Your task to perform on an android device: Open privacy settings Image 0: 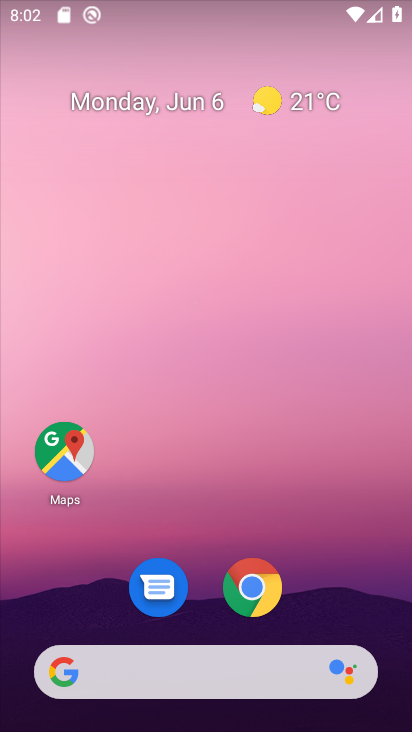
Step 0: drag from (309, 421) to (271, 157)
Your task to perform on an android device: Open privacy settings Image 1: 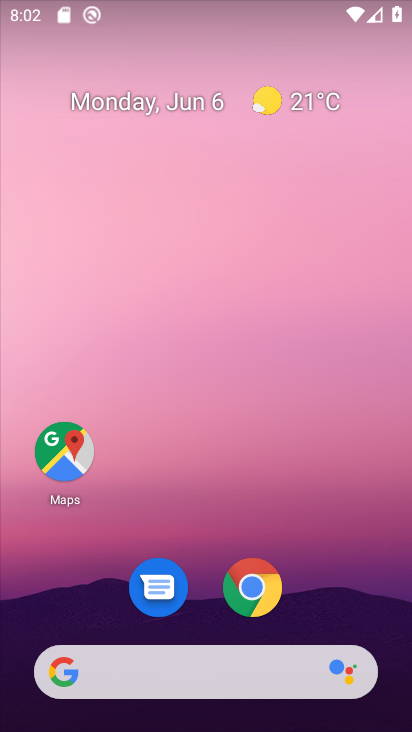
Step 1: drag from (355, 554) to (305, 211)
Your task to perform on an android device: Open privacy settings Image 2: 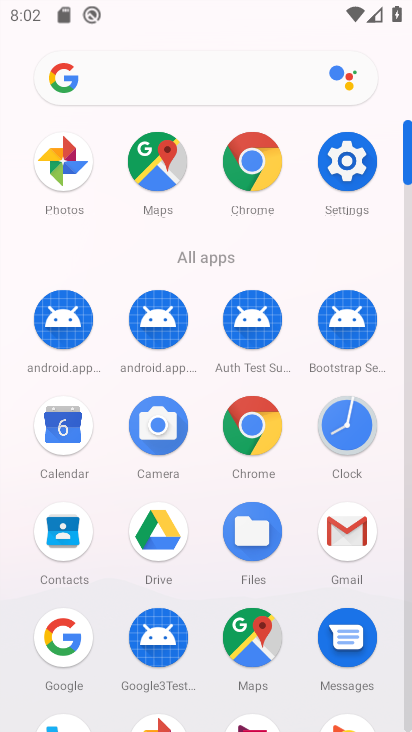
Step 2: click (350, 154)
Your task to perform on an android device: Open privacy settings Image 3: 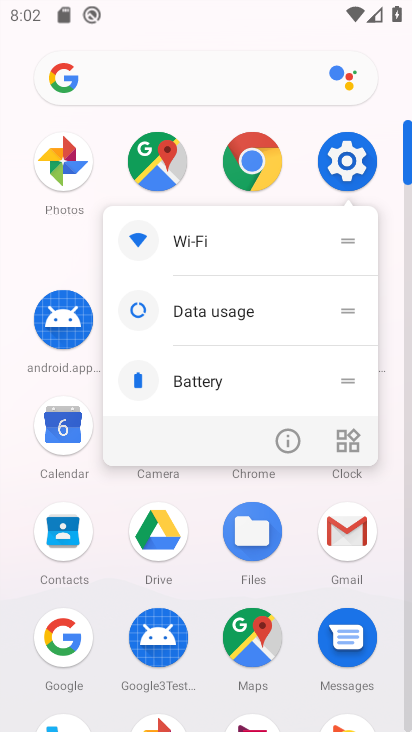
Step 3: click (356, 161)
Your task to perform on an android device: Open privacy settings Image 4: 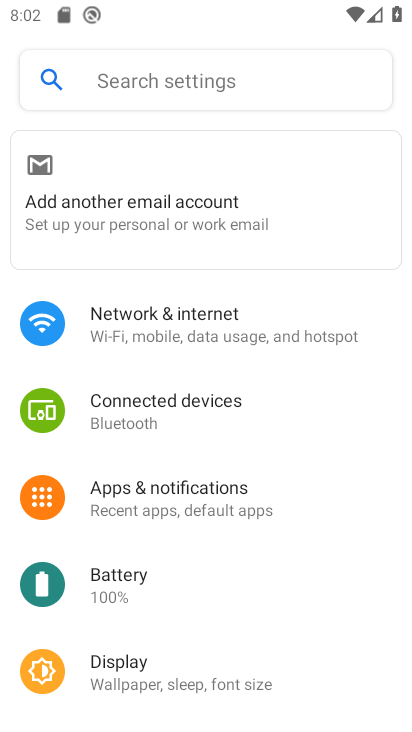
Step 4: drag from (274, 629) to (273, 292)
Your task to perform on an android device: Open privacy settings Image 5: 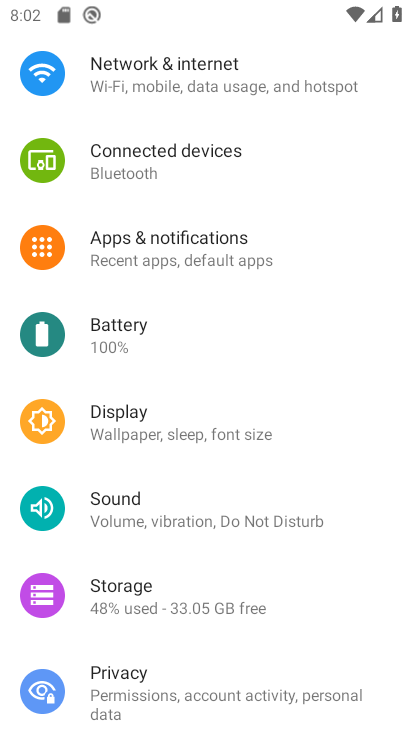
Step 5: click (197, 693)
Your task to perform on an android device: Open privacy settings Image 6: 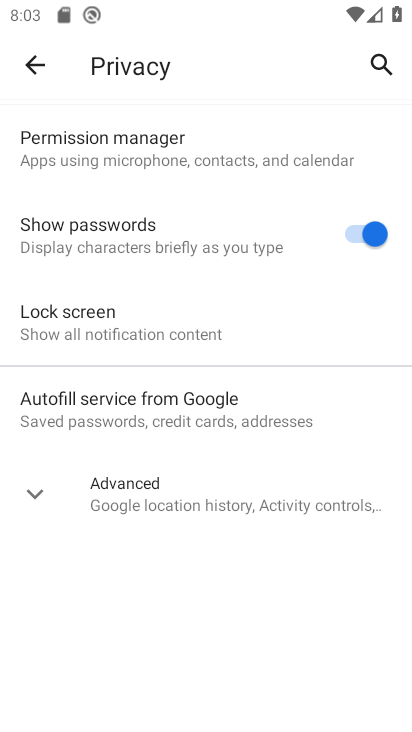
Step 6: task complete